Your task to perform on an android device: open sync settings in chrome Image 0: 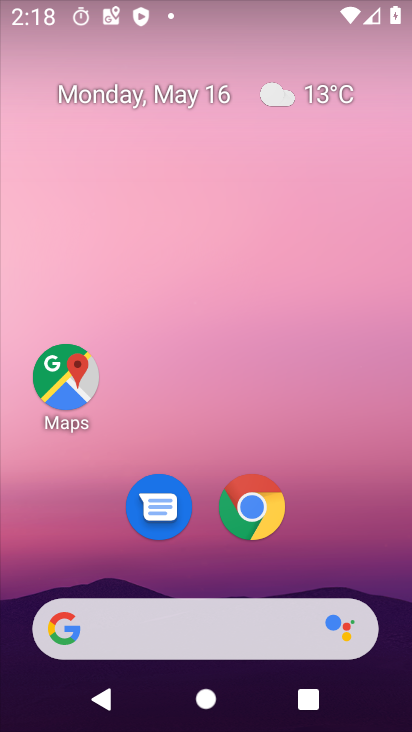
Step 0: drag from (365, 558) to (346, 162)
Your task to perform on an android device: open sync settings in chrome Image 1: 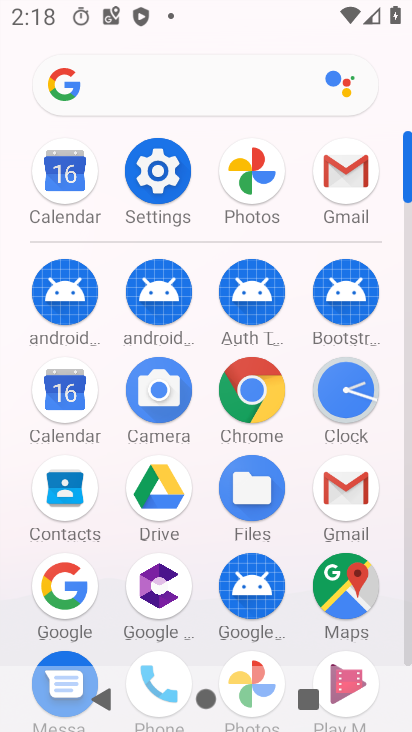
Step 1: click (268, 408)
Your task to perform on an android device: open sync settings in chrome Image 2: 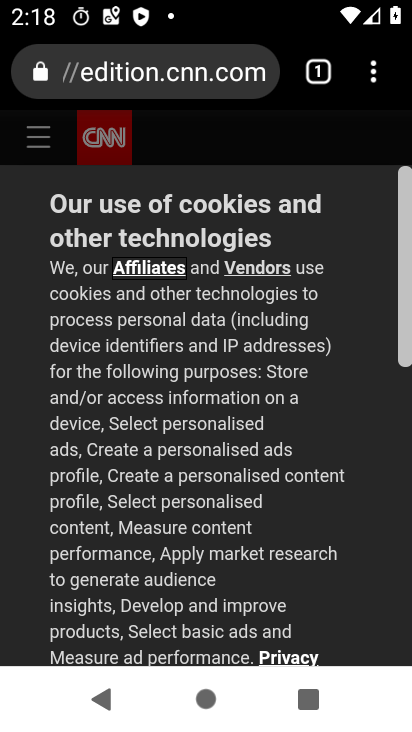
Step 2: click (375, 77)
Your task to perform on an android device: open sync settings in chrome Image 3: 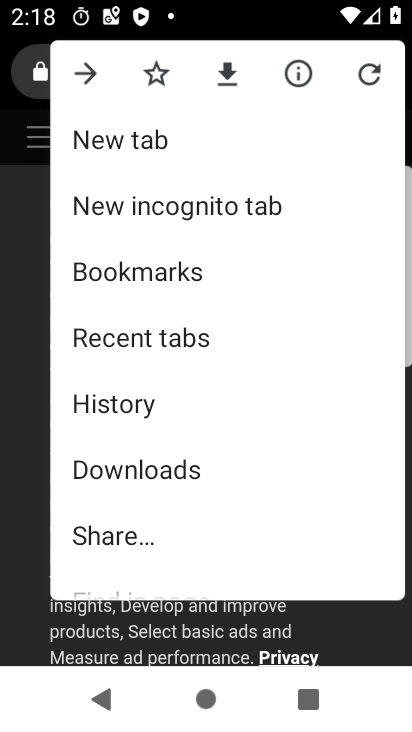
Step 3: drag from (323, 513) to (330, 396)
Your task to perform on an android device: open sync settings in chrome Image 4: 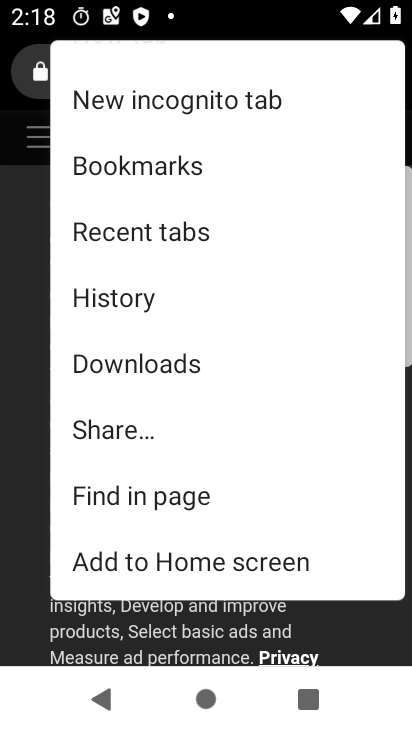
Step 4: drag from (315, 519) to (324, 337)
Your task to perform on an android device: open sync settings in chrome Image 5: 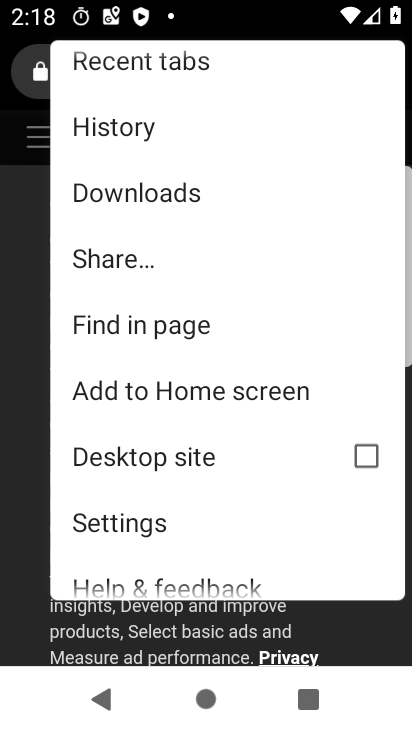
Step 5: drag from (292, 534) to (298, 351)
Your task to perform on an android device: open sync settings in chrome Image 6: 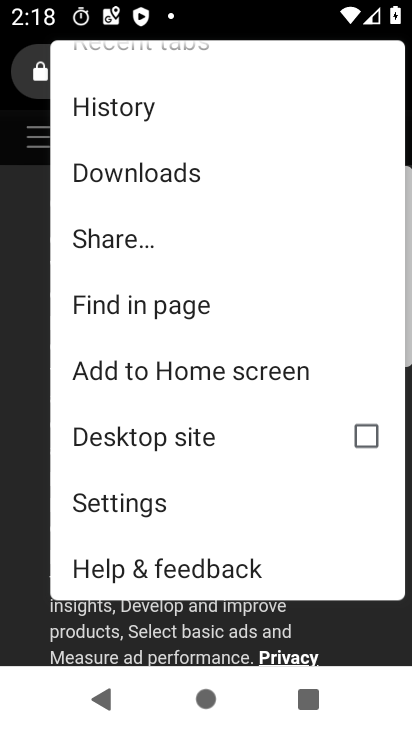
Step 6: click (147, 510)
Your task to perform on an android device: open sync settings in chrome Image 7: 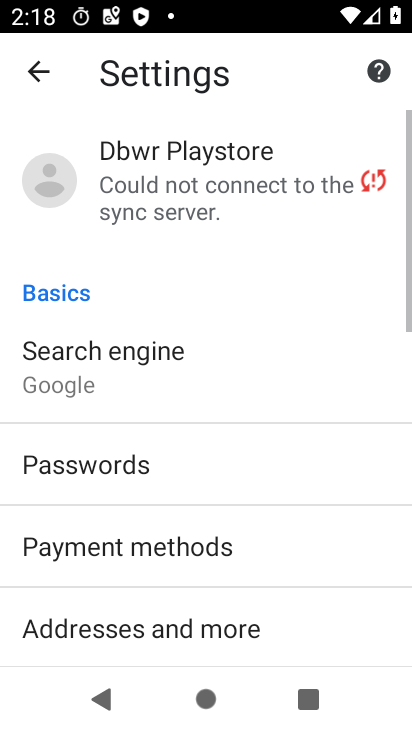
Step 7: drag from (295, 585) to (313, 481)
Your task to perform on an android device: open sync settings in chrome Image 8: 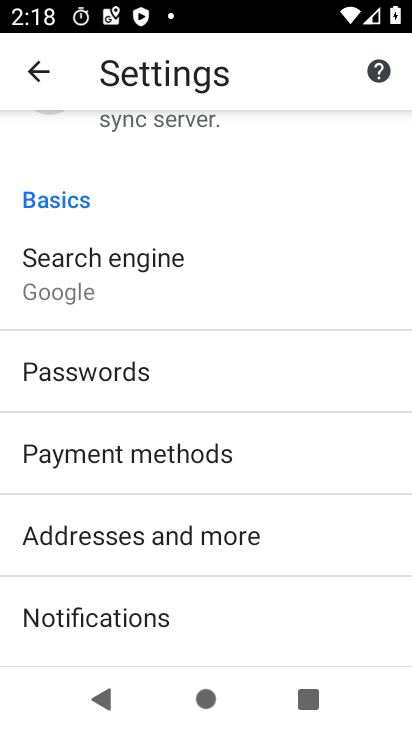
Step 8: drag from (331, 620) to (361, 368)
Your task to perform on an android device: open sync settings in chrome Image 9: 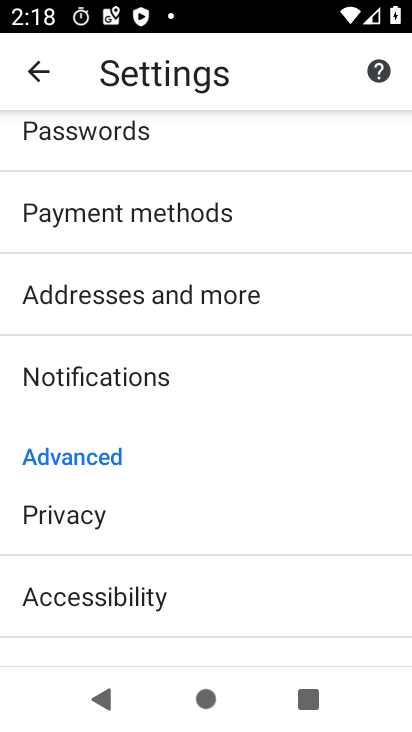
Step 9: drag from (346, 554) to (336, 391)
Your task to perform on an android device: open sync settings in chrome Image 10: 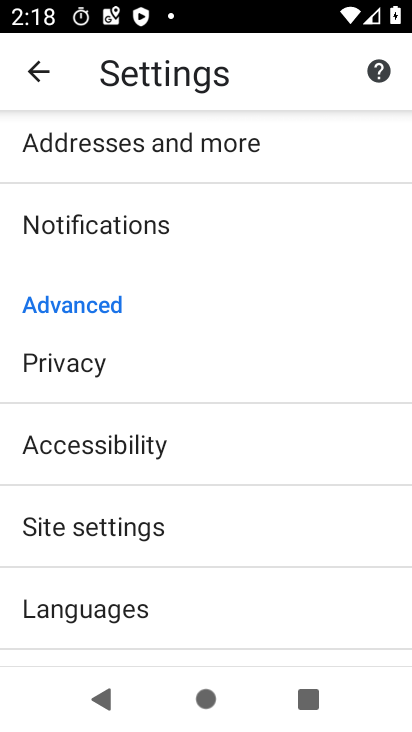
Step 10: drag from (325, 603) to (324, 444)
Your task to perform on an android device: open sync settings in chrome Image 11: 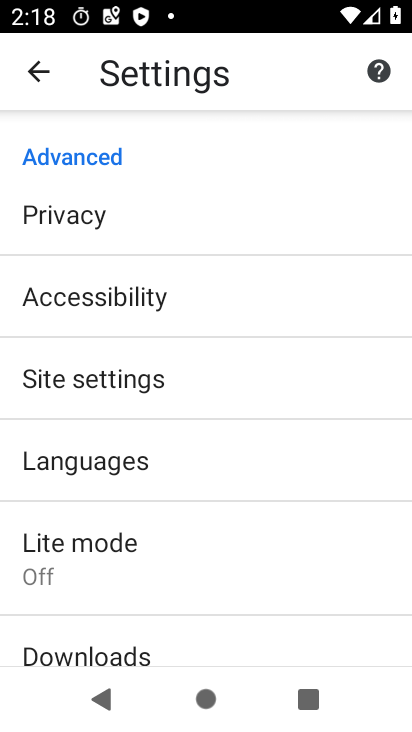
Step 11: drag from (313, 617) to (319, 436)
Your task to perform on an android device: open sync settings in chrome Image 12: 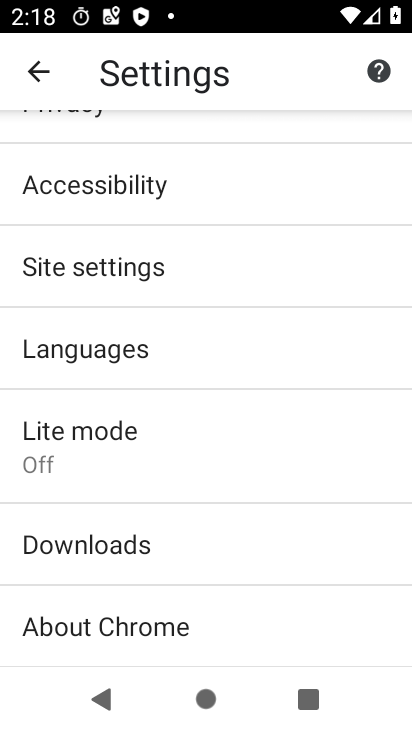
Step 12: drag from (326, 628) to (319, 440)
Your task to perform on an android device: open sync settings in chrome Image 13: 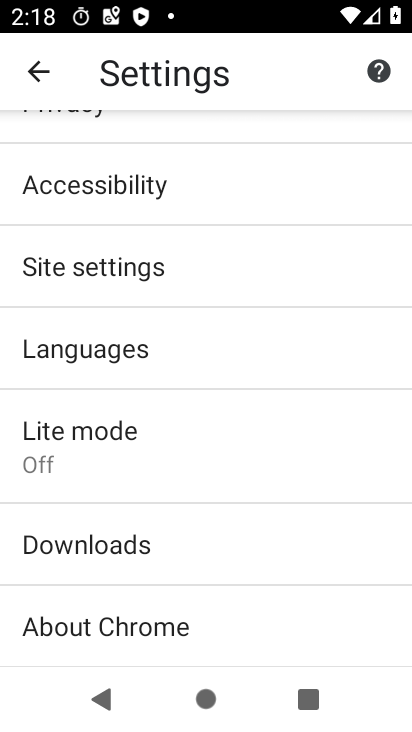
Step 13: click (154, 283)
Your task to perform on an android device: open sync settings in chrome Image 14: 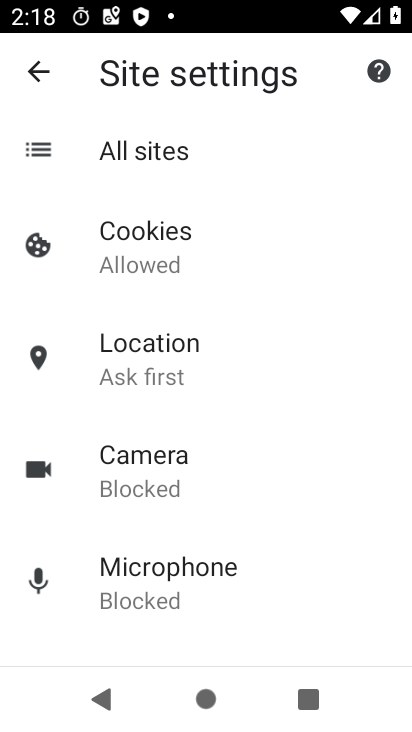
Step 14: drag from (319, 607) to (315, 443)
Your task to perform on an android device: open sync settings in chrome Image 15: 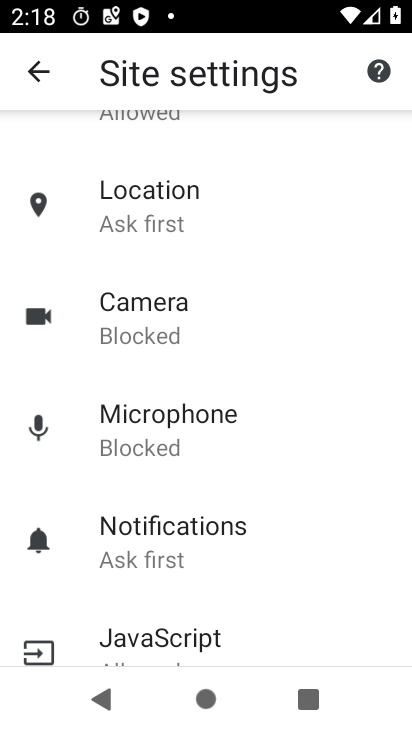
Step 15: drag from (304, 628) to (304, 476)
Your task to perform on an android device: open sync settings in chrome Image 16: 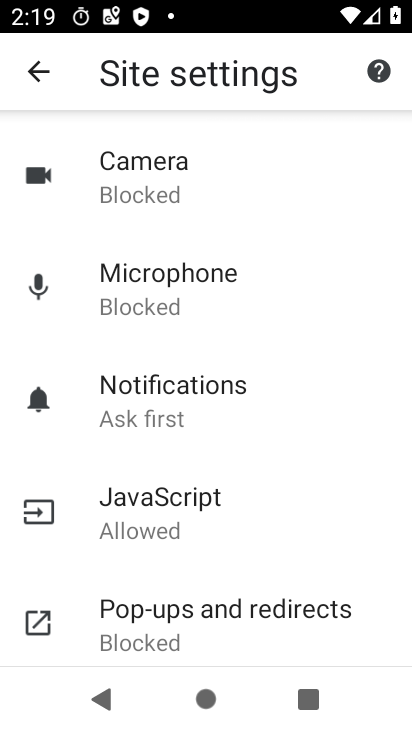
Step 16: drag from (296, 641) to (314, 461)
Your task to perform on an android device: open sync settings in chrome Image 17: 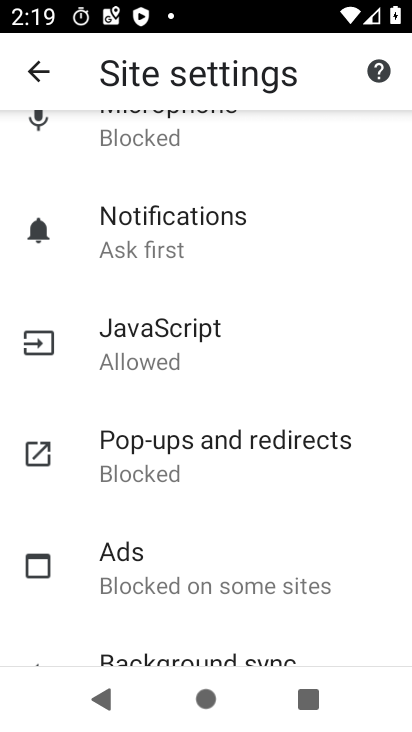
Step 17: drag from (299, 635) to (301, 461)
Your task to perform on an android device: open sync settings in chrome Image 18: 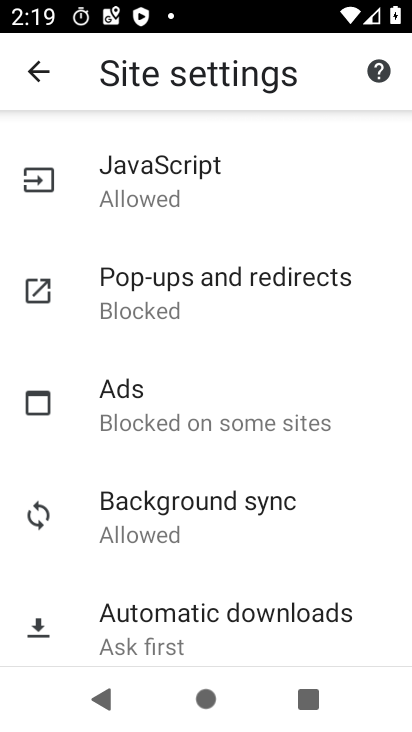
Step 18: drag from (319, 648) to (317, 457)
Your task to perform on an android device: open sync settings in chrome Image 19: 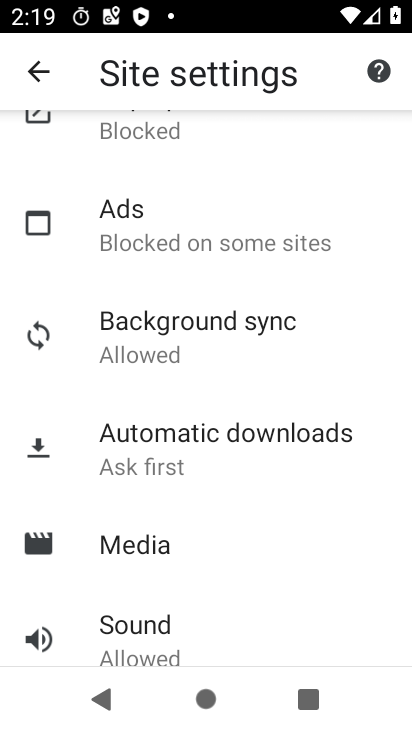
Step 19: drag from (292, 614) to (292, 448)
Your task to perform on an android device: open sync settings in chrome Image 20: 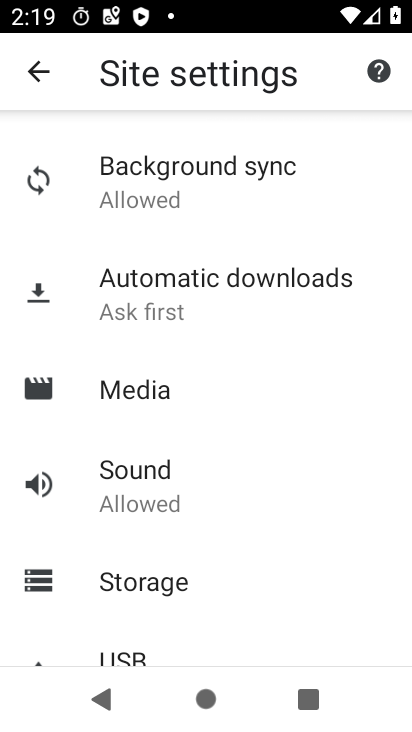
Step 20: drag from (280, 632) to (280, 446)
Your task to perform on an android device: open sync settings in chrome Image 21: 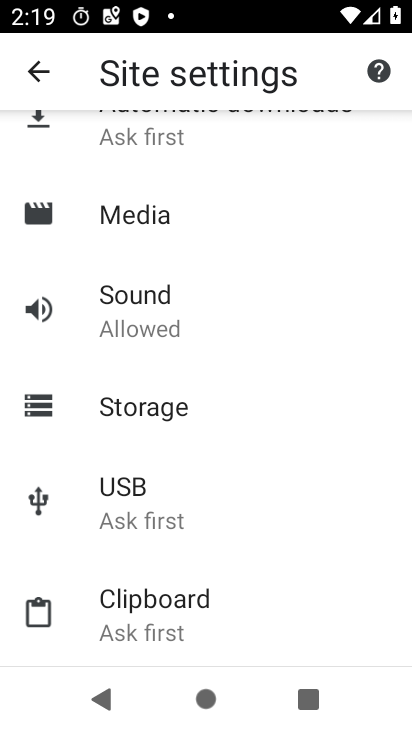
Step 21: drag from (280, 338) to (284, 478)
Your task to perform on an android device: open sync settings in chrome Image 22: 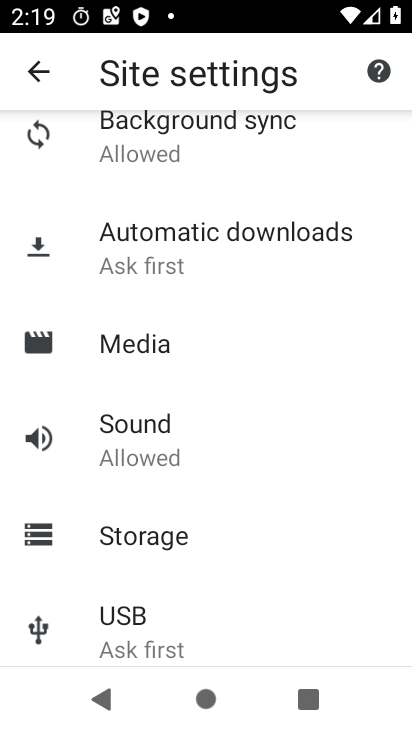
Step 22: drag from (284, 312) to (280, 449)
Your task to perform on an android device: open sync settings in chrome Image 23: 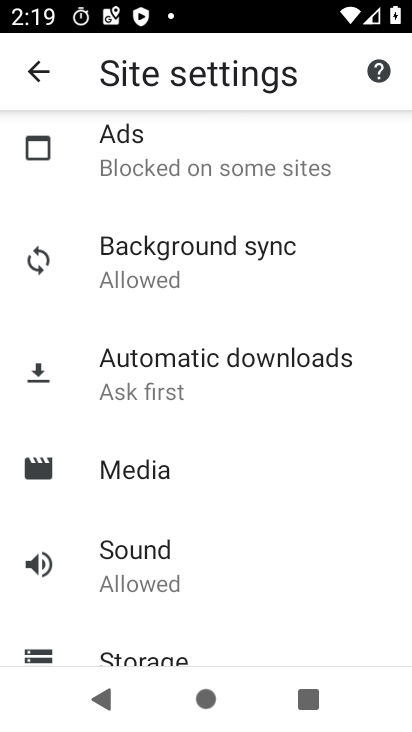
Step 23: click (229, 262)
Your task to perform on an android device: open sync settings in chrome Image 24: 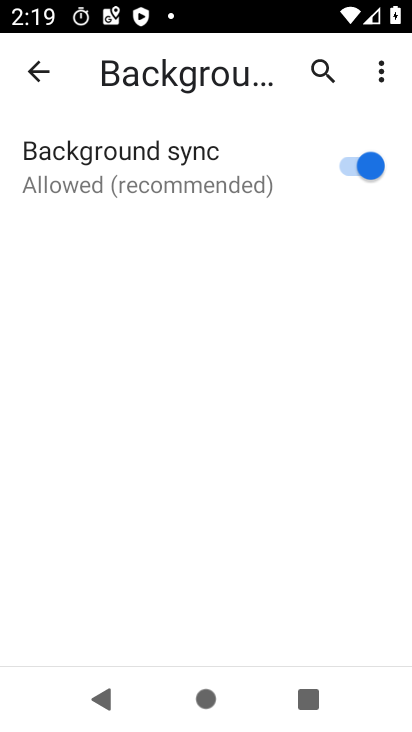
Step 24: task complete